Your task to perform on an android device: turn off picture-in-picture Image 0: 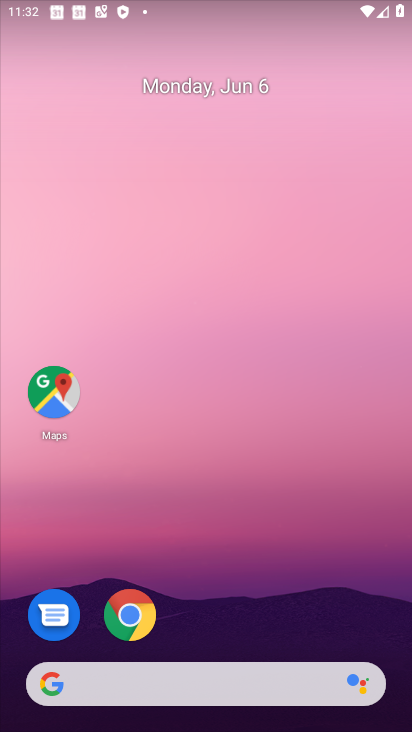
Step 0: drag from (247, 609) to (238, 121)
Your task to perform on an android device: turn off picture-in-picture Image 1: 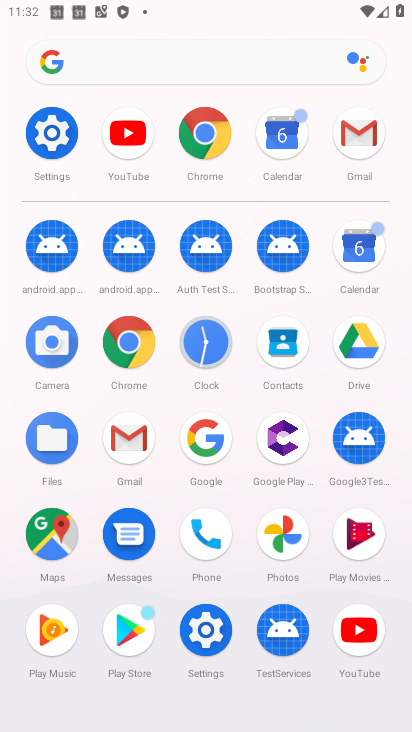
Step 1: click (40, 155)
Your task to perform on an android device: turn off picture-in-picture Image 2: 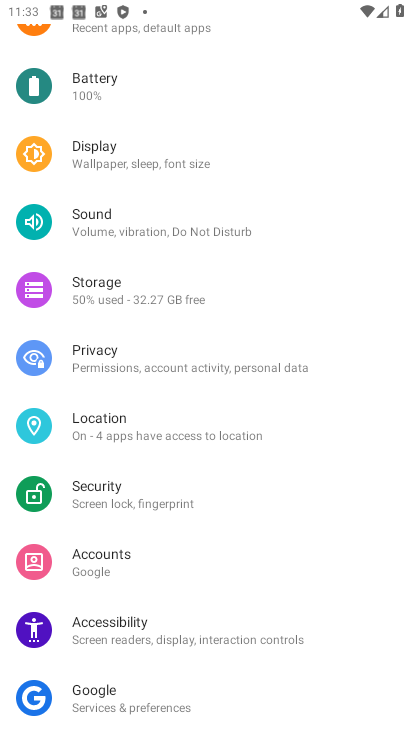
Step 2: click (178, 44)
Your task to perform on an android device: turn off picture-in-picture Image 3: 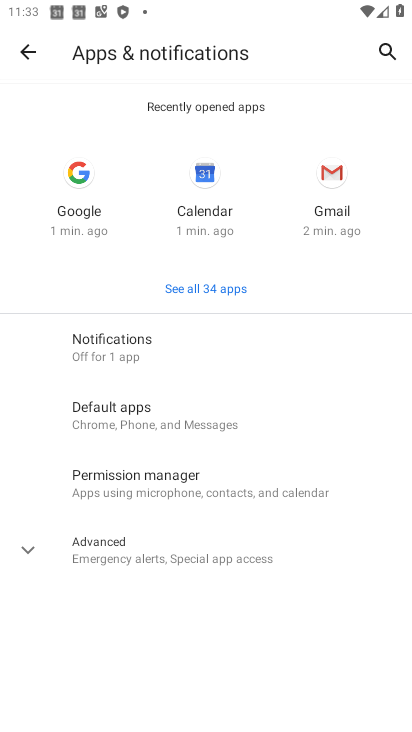
Step 3: click (275, 558)
Your task to perform on an android device: turn off picture-in-picture Image 4: 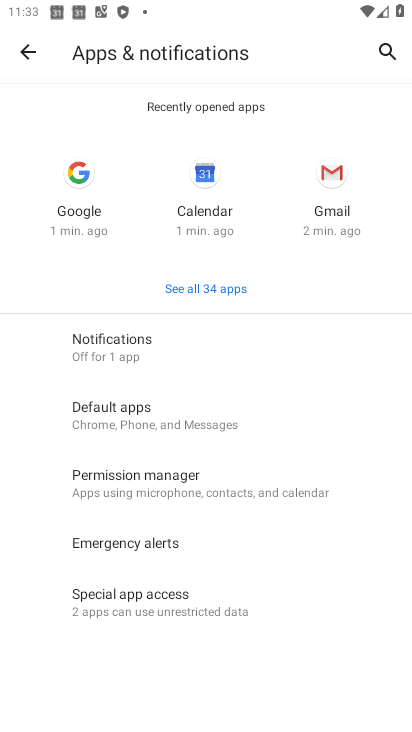
Step 4: click (231, 594)
Your task to perform on an android device: turn off picture-in-picture Image 5: 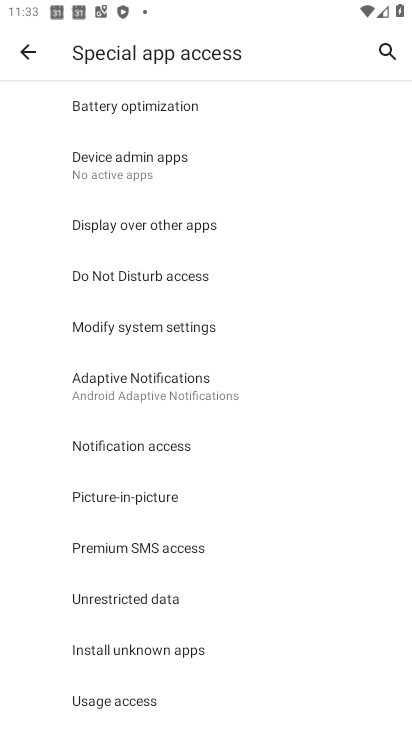
Step 5: click (200, 506)
Your task to perform on an android device: turn off picture-in-picture Image 6: 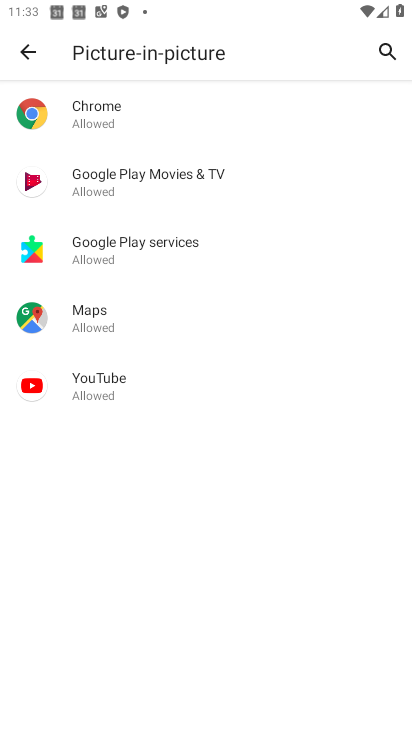
Step 6: task complete